Your task to perform on an android device: Is it going to rain tomorrow? Image 0: 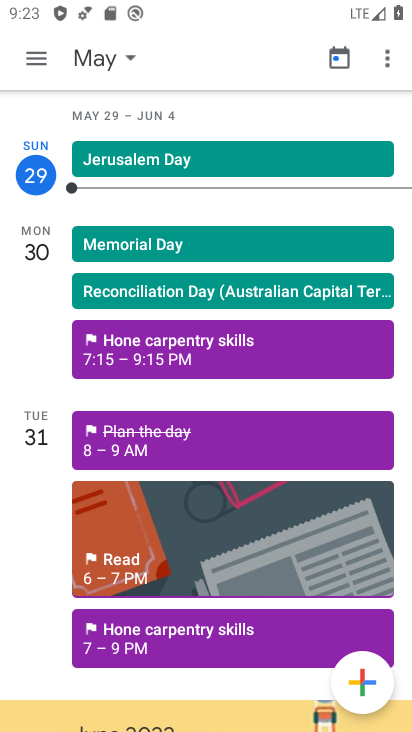
Step 0: press home button
Your task to perform on an android device: Is it going to rain tomorrow? Image 1: 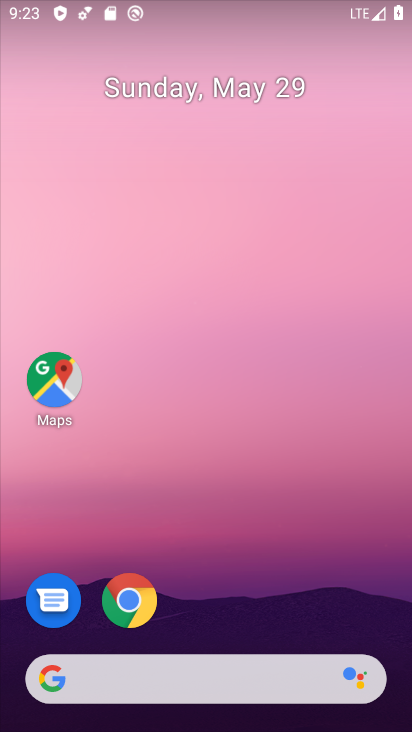
Step 1: click (134, 602)
Your task to perform on an android device: Is it going to rain tomorrow? Image 2: 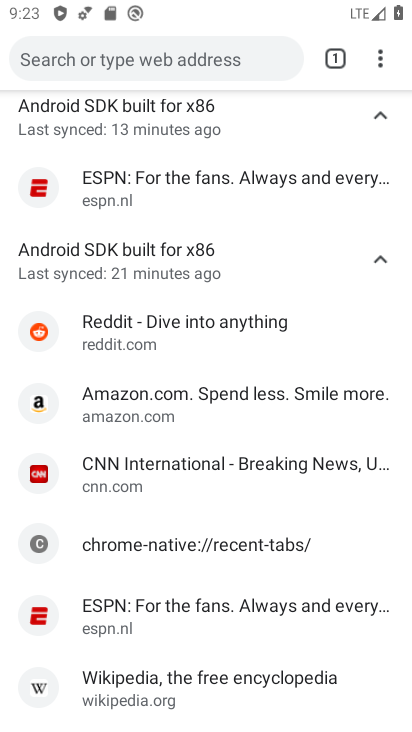
Step 2: click (237, 59)
Your task to perform on an android device: Is it going to rain tomorrow? Image 3: 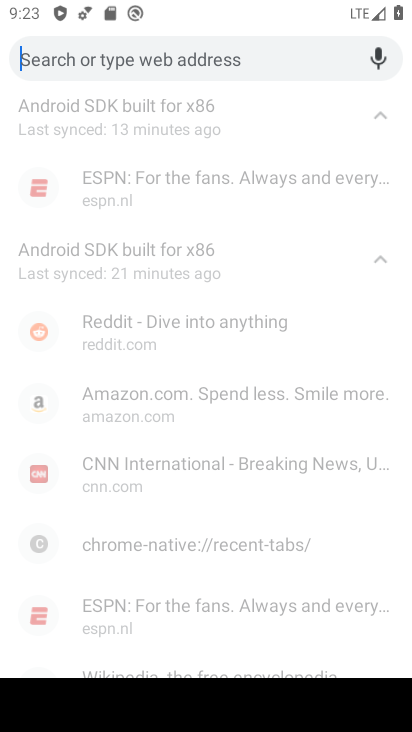
Step 3: type "Is it going to rain tomorrow?"
Your task to perform on an android device: Is it going to rain tomorrow? Image 4: 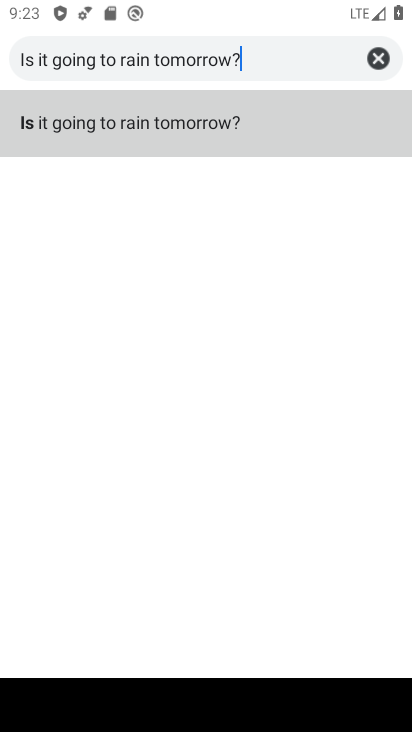
Step 4: click (106, 120)
Your task to perform on an android device: Is it going to rain tomorrow? Image 5: 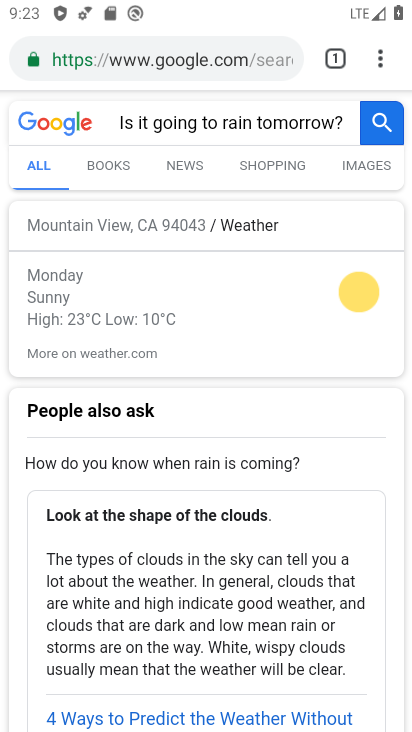
Step 5: task complete